Your task to perform on an android device: Search for "jbl flip 4" on amazon.com, select the first entry, add it to the cart, then select checkout. Image 0: 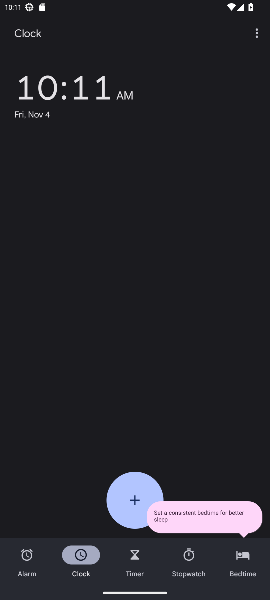
Step 0: press home button
Your task to perform on an android device: Search for "jbl flip 4" on amazon.com, select the first entry, add it to the cart, then select checkout. Image 1: 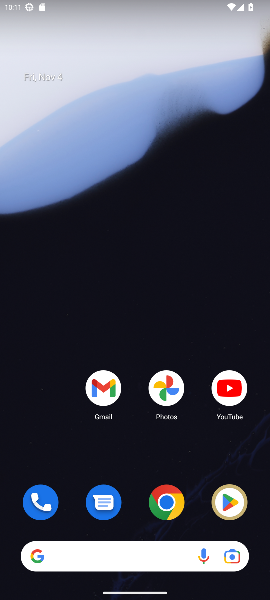
Step 1: click (155, 498)
Your task to perform on an android device: Search for "jbl flip 4" on amazon.com, select the first entry, add it to the cart, then select checkout. Image 2: 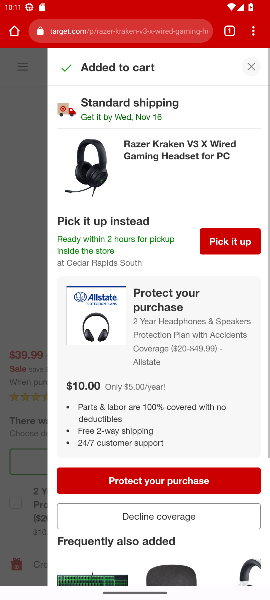
Step 2: click (253, 66)
Your task to perform on an android device: Search for "jbl flip 4" on amazon.com, select the first entry, add it to the cart, then select checkout. Image 3: 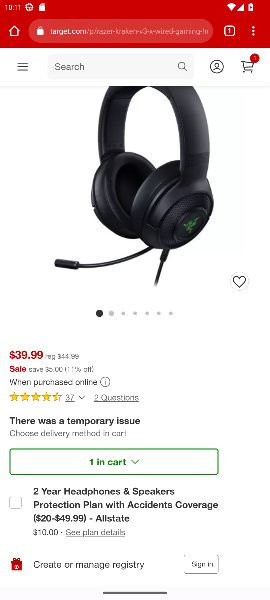
Step 3: click (119, 29)
Your task to perform on an android device: Search for "jbl flip 4" on amazon.com, select the first entry, add it to the cart, then select checkout. Image 4: 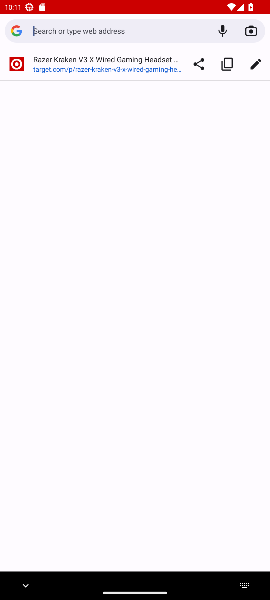
Step 4: type "amazon"
Your task to perform on an android device: Search for "jbl flip 4" on amazon.com, select the first entry, add it to the cart, then select checkout. Image 5: 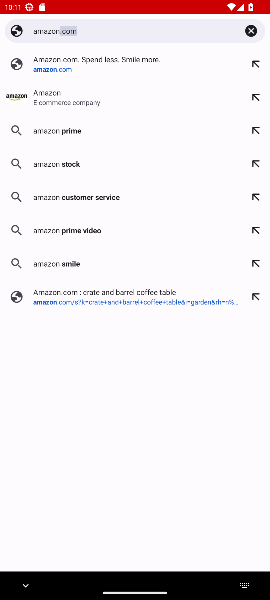
Step 5: click (179, 31)
Your task to perform on an android device: Search for "jbl flip 4" on amazon.com, select the first entry, add it to the cart, then select checkout. Image 6: 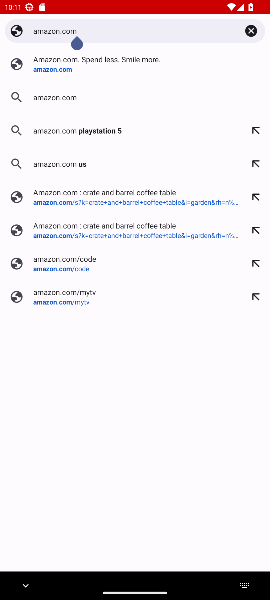
Step 6: click (61, 97)
Your task to perform on an android device: Search for "jbl flip 4" on amazon.com, select the first entry, add it to the cart, then select checkout. Image 7: 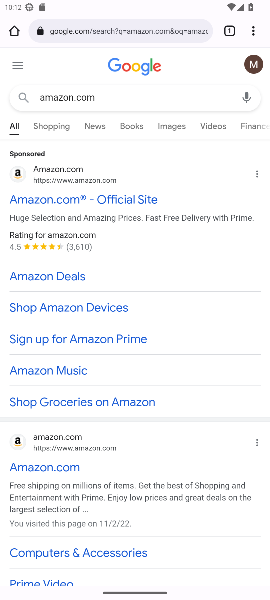
Step 7: click (81, 443)
Your task to perform on an android device: Search for "jbl flip 4" on amazon.com, select the first entry, add it to the cart, then select checkout. Image 8: 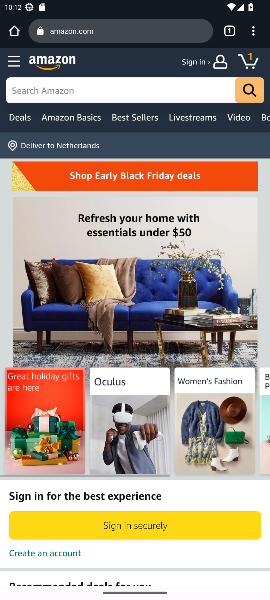
Step 8: click (177, 92)
Your task to perform on an android device: Search for "jbl flip 4" on amazon.com, select the first entry, add it to the cart, then select checkout. Image 9: 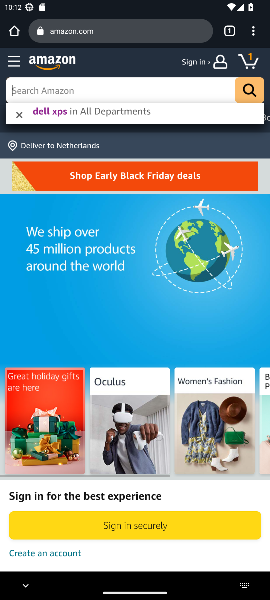
Step 9: type "jbl flip 4"
Your task to perform on an android device: Search for "jbl flip 4" on amazon.com, select the first entry, add it to the cart, then select checkout. Image 10: 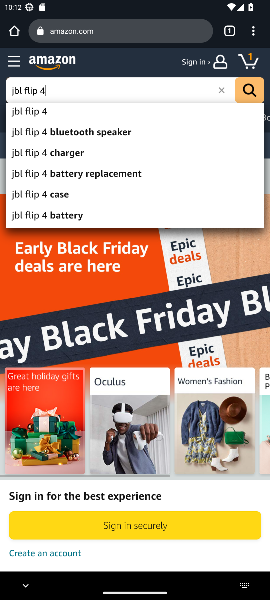
Step 10: click (33, 112)
Your task to perform on an android device: Search for "jbl flip 4" on amazon.com, select the first entry, add it to the cart, then select checkout. Image 11: 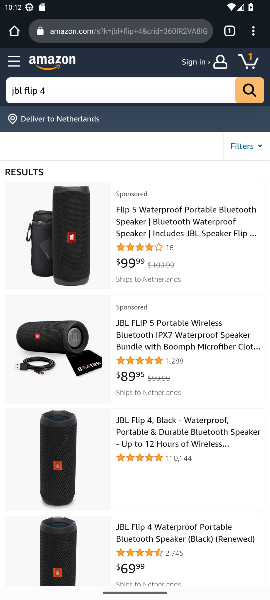
Step 11: click (55, 449)
Your task to perform on an android device: Search for "jbl flip 4" on amazon.com, select the first entry, add it to the cart, then select checkout. Image 12: 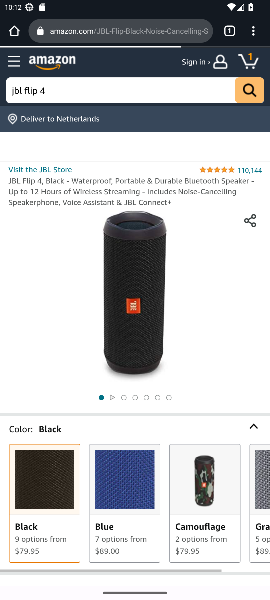
Step 12: drag from (224, 392) to (233, 202)
Your task to perform on an android device: Search for "jbl flip 4" on amazon.com, select the first entry, add it to the cart, then select checkout. Image 13: 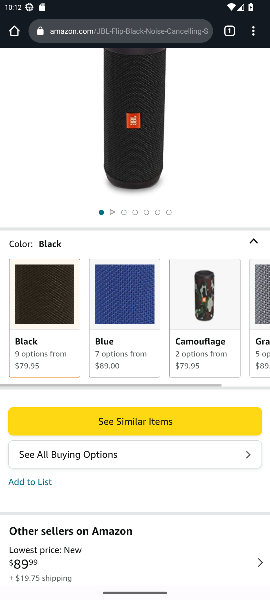
Step 13: press back button
Your task to perform on an android device: Search for "jbl flip 4" on amazon.com, select the first entry, add it to the cart, then select checkout. Image 14: 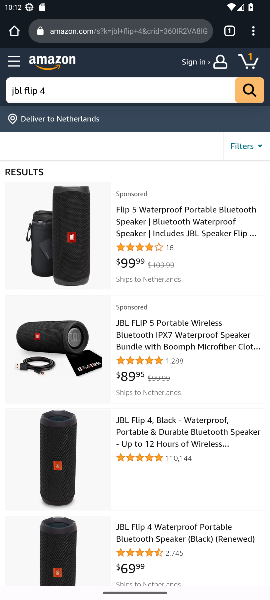
Step 14: click (42, 547)
Your task to perform on an android device: Search for "jbl flip 4" on amazon.com, select the first entry, add it to the cart, then select checkout. Image 15: 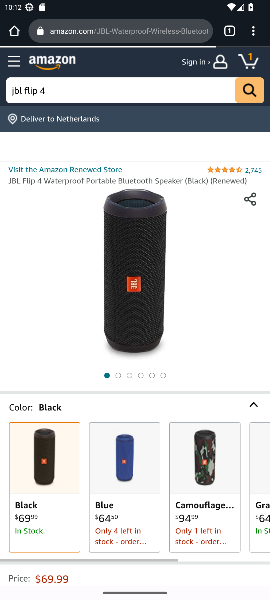
Step 15: drag from (158, 525) to (172, 228)
Your task to perform on an android device: Search for "jbl flip 4" on amazon.com, select the first entry, add it to the cart, then select checkout. Image 16: 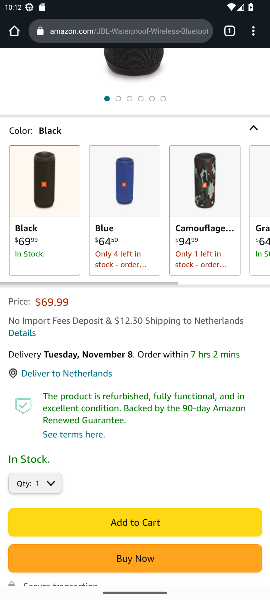
Step 16: click (170, 520)
Your task to perform on an android device: Search for "jbl flip 4" on amazon.com, select the first entry, add it to the cart, then select checkout. Image 17: 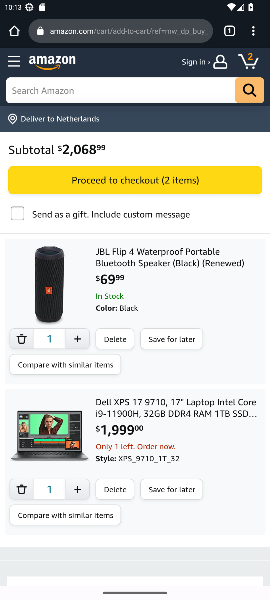
Step 17: click (159, 178)
Your task to perform on an android device: Search for "jbl flip 4" on amazon.com, select the first entry, add it to the cart, then select checkout. Image 18: 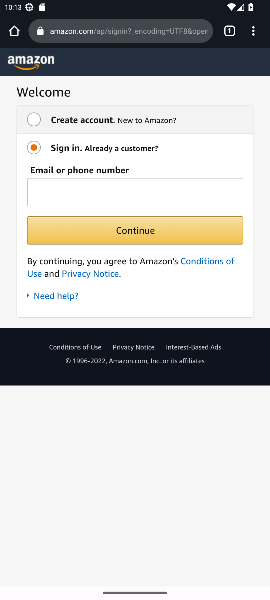
Step 18: task complete